Your task to perform on an android device: turn on location history Image 0: 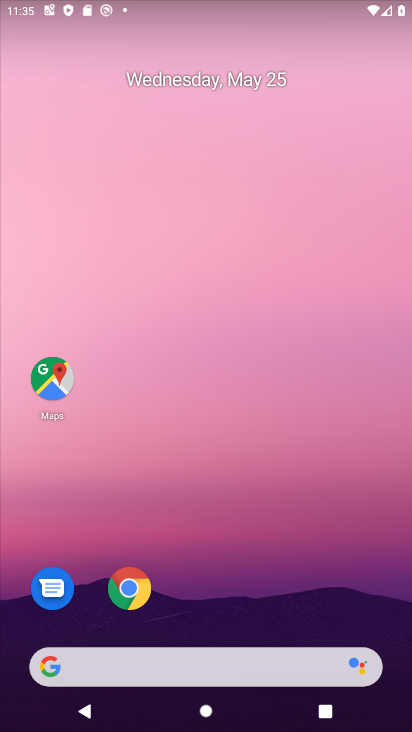
Step 0: drag from (289, 584) to (247, 28)
Your task to perform on an android device: turn on location history Image 1: 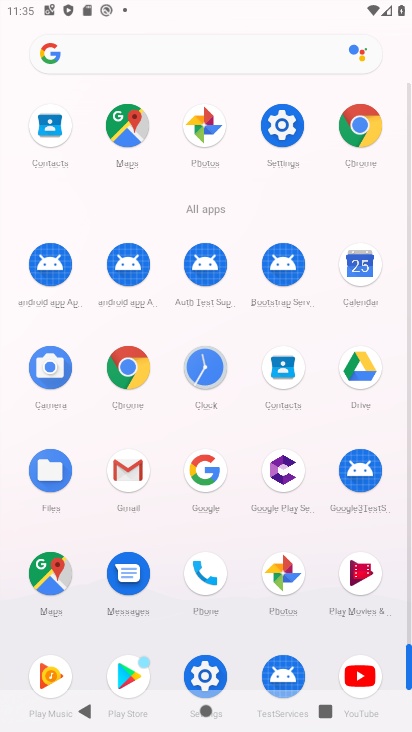
Step 1: drag from (8, 532) to (18, 206)
Your task to perform on an android device: turn on location history Image 2: 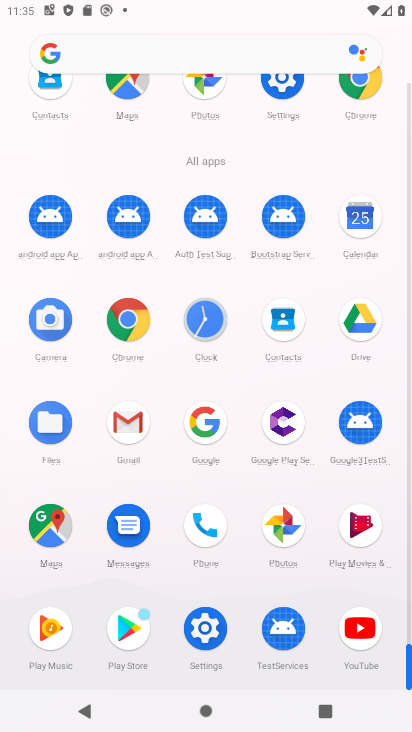
Step 2: click (201, 627)
Your task to perform on an android device: turn on location history Image 3: 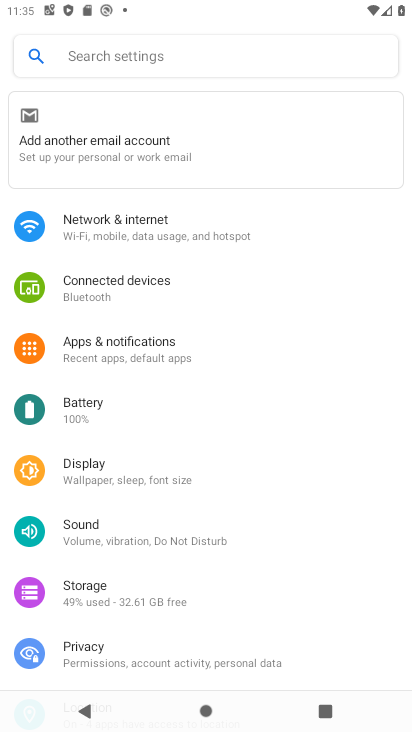
Step 3: drag from (181, 589) to (232, 209)
Your task to perform on an android device: turn on location history Image 4: 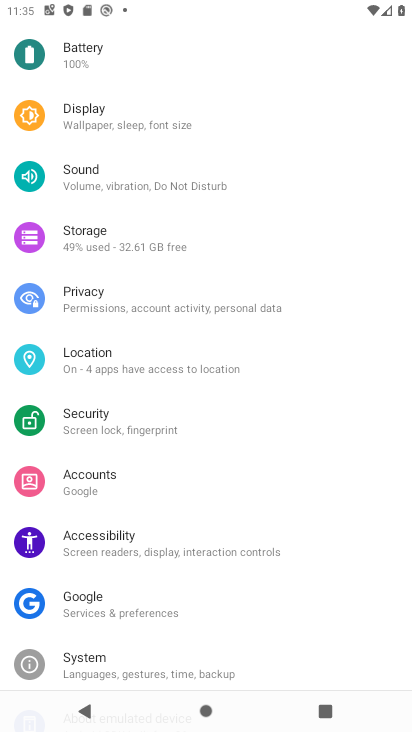
Step 4: click (154, 352)
Your task to perform on an android device: turn on location history Image 5: 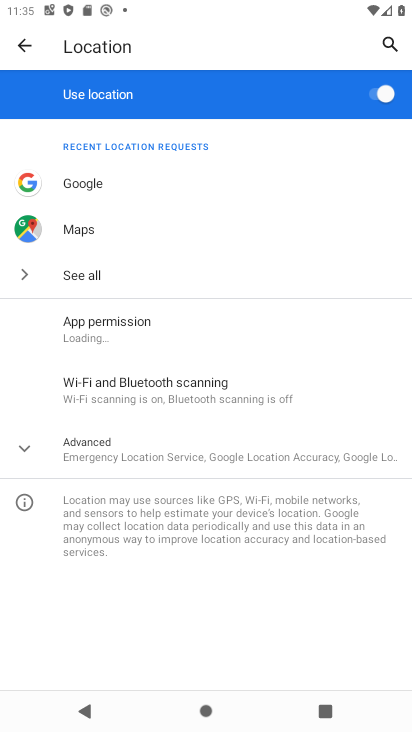
Step 5: click (41, 456)
Your task to perform on an android device: turn on location history Image 6: 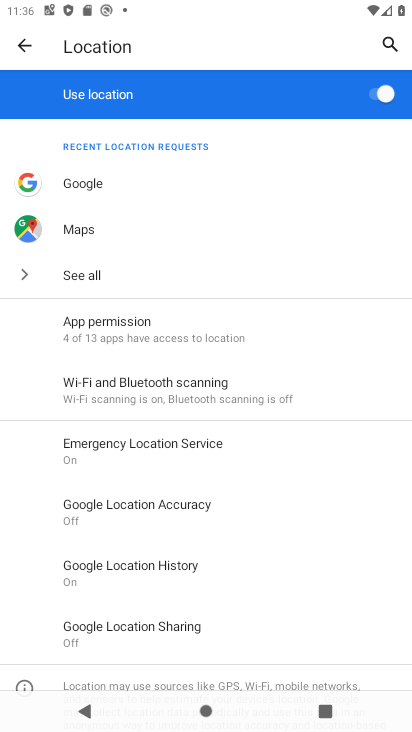
Step 6: click (180, 566)
Your task to perform on an android device: turn on location history Image 7: 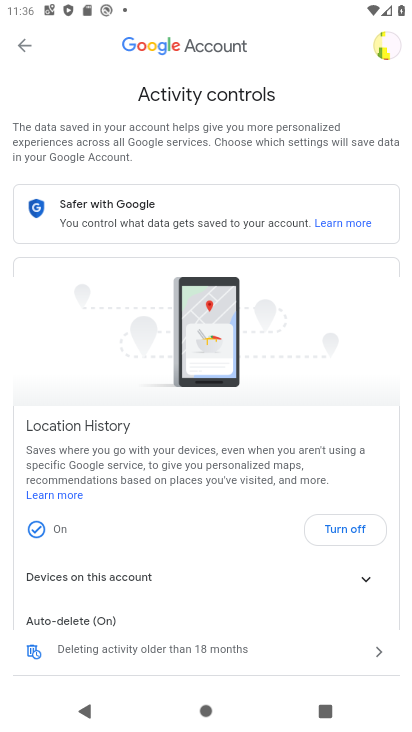
Step 7: task complete